Your task to perform on an android device: open a new tab in the chrome app Image 0: 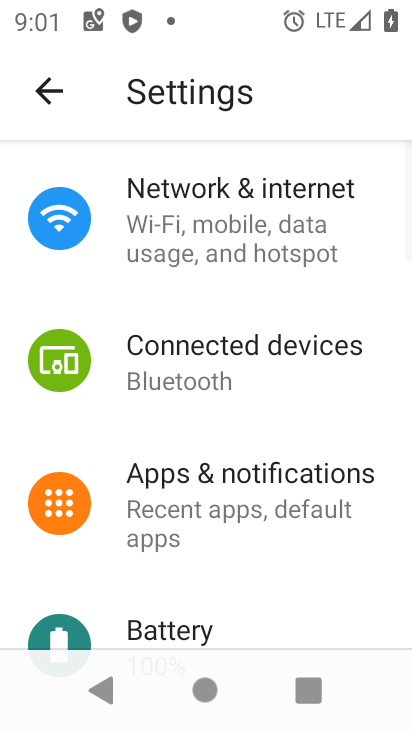
Step 0: press home button
Your task to perform on an android device: open a new tab in the chrome app Image 1: 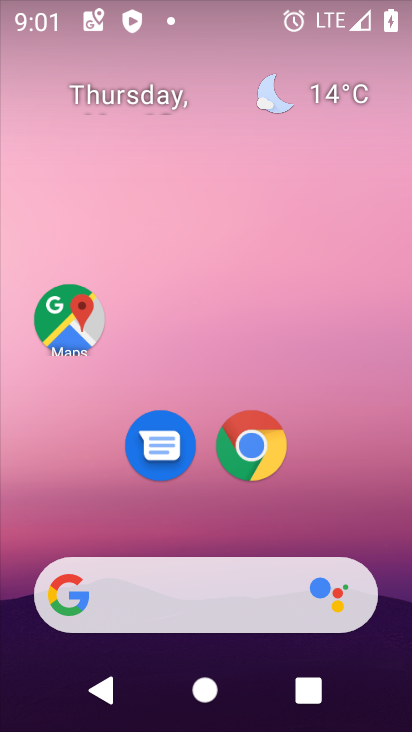
Step 1: click (232, 449)
Your task to perform on an android device: open a new tab in the chrome app Image 2: 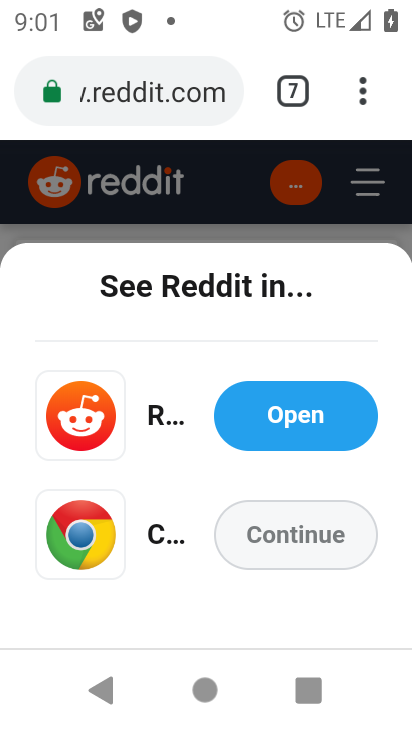
Step 2: click (365, 96)
Your task to perform on an android device: open a new tab in the chrome app Image 3: 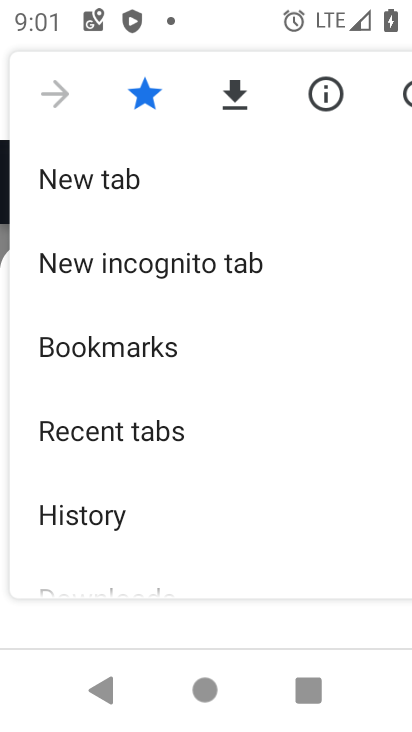
Step 3: click (120, 173)
Your task to perform on an android device: open a new tab in the chrome app Image 4: 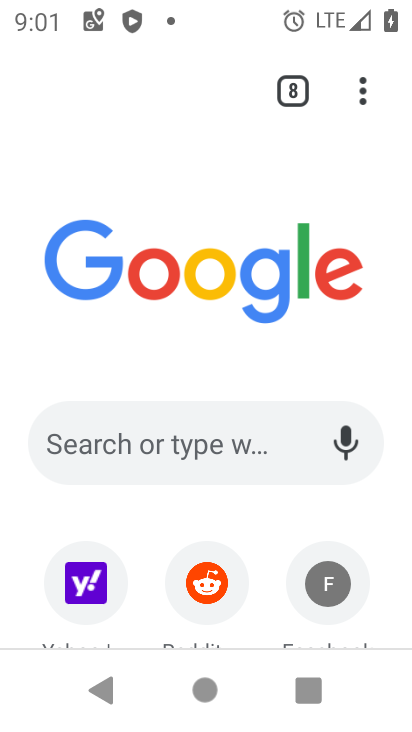
Step 4: task complete